Your task to perform on an android device: Open network settings Image 0: 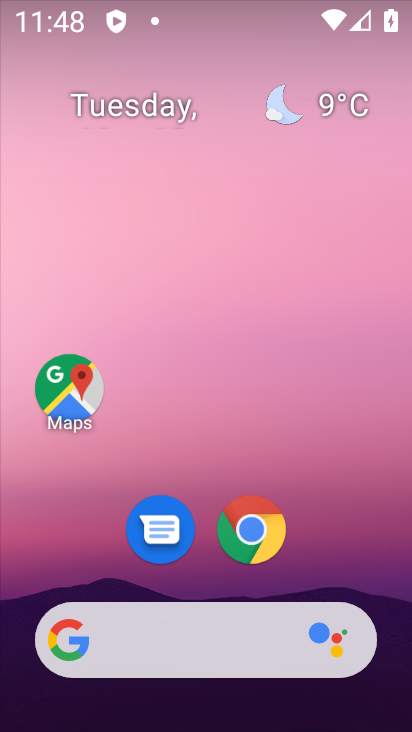
Step 0: drag from (303, 567) to (338, 252)
Your task to perform on an android device: Open network settings Image 1: 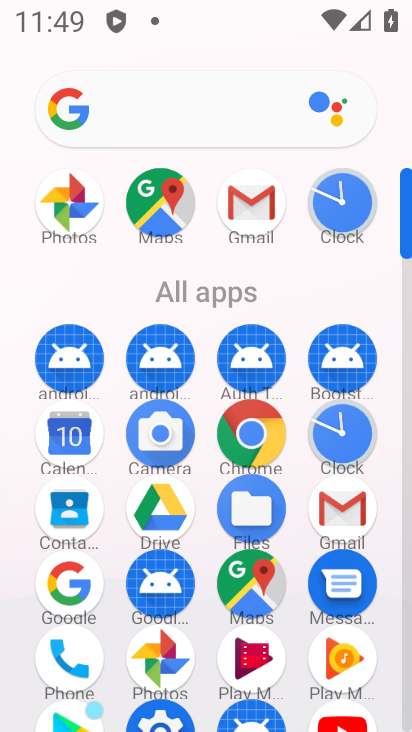
Step 1: drag from (203, 640) to (215, 245)
Your task to perform on an android device: Open network settings Image 2: 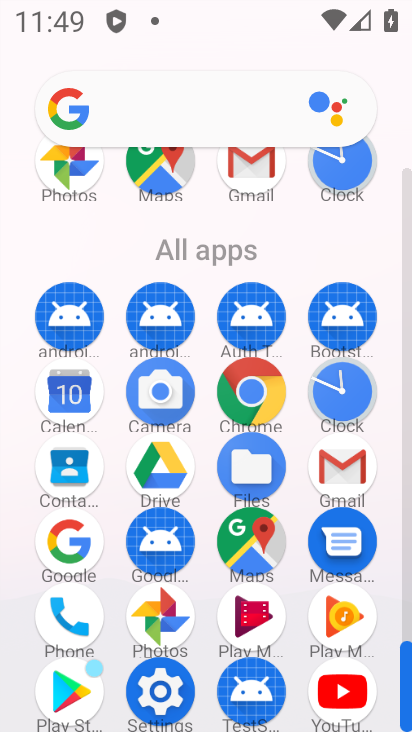
Step 2: click (166, 681)
Your task to perform on an android device: Open network settings Image 3: 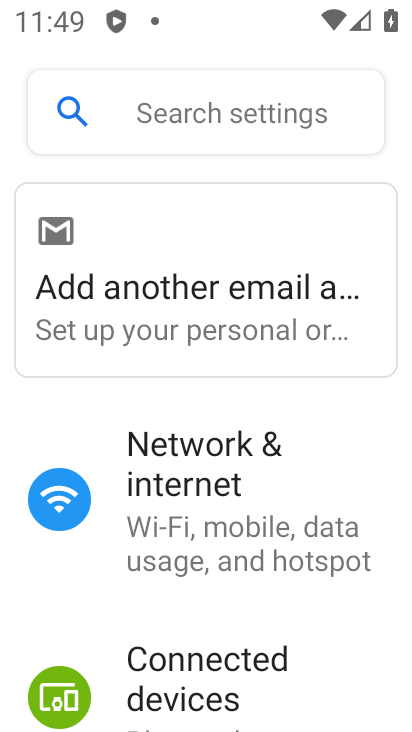
Step 3: click (256, 486)
Your task to perform on an android device: Open network settings Image 4: 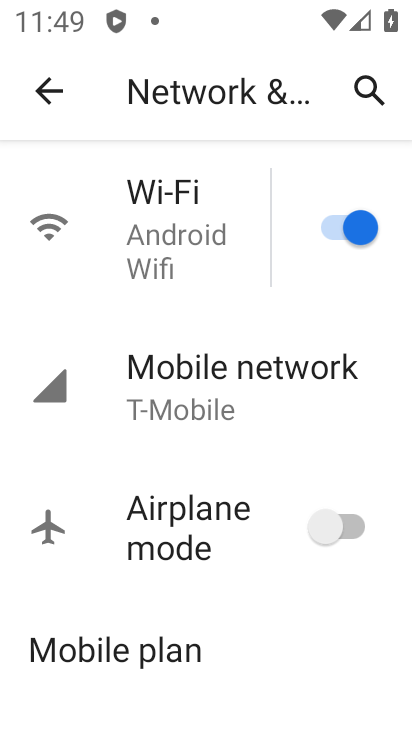
Step 4: click (239, 408)
Your task to perform on an android device: Open network settings Image 5: 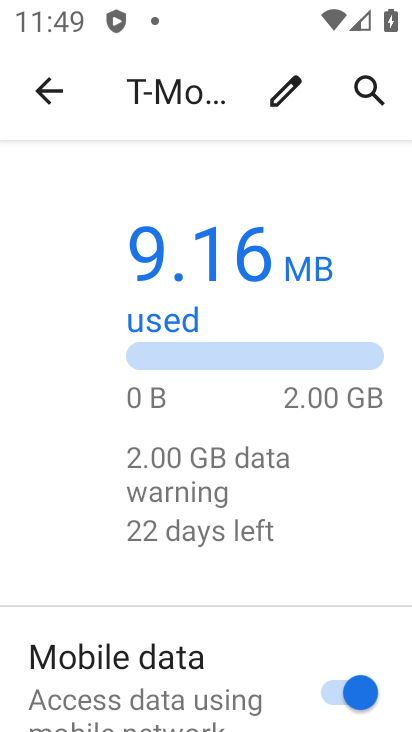
Step 5: task complete